Your task to perform on an android device: Open calendar and show me the third week of next month Image 0: 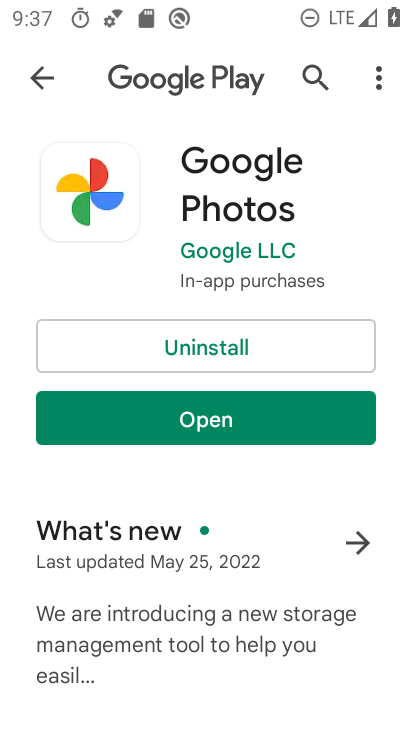
Step 0: press home button
Your task to perform on an android device: Open calendar and show me the third week of next month Image 1: 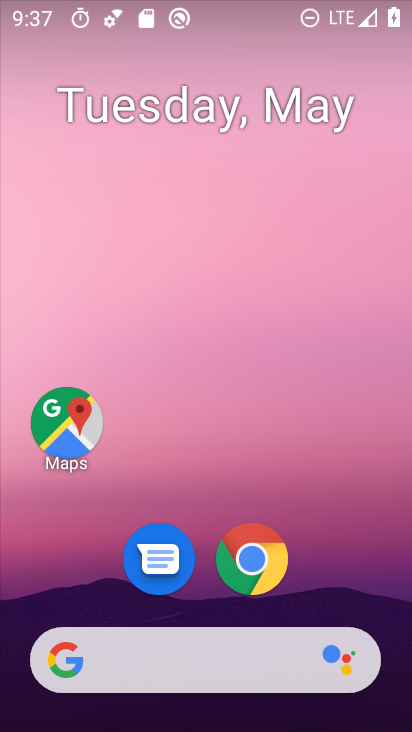
Step 1: drag from (404, 642) to (281, 119)
Your task to perform on an android device: Open calendar and show me the third week of next month Image 2: 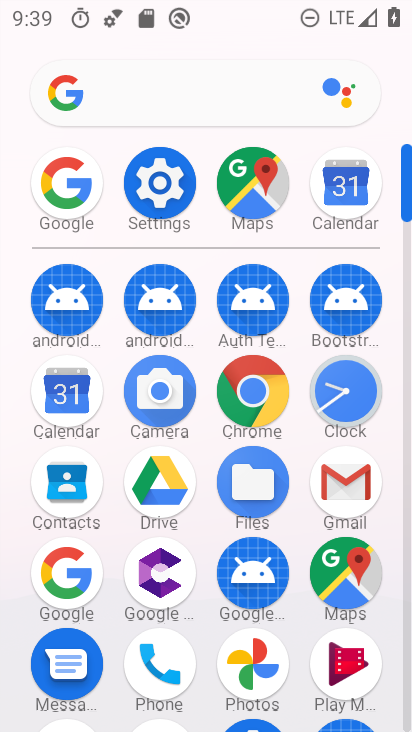
Step 2: click (63, 405)
Your task to perform on an android device: Open calendar and show me the third week of next month Image 3: 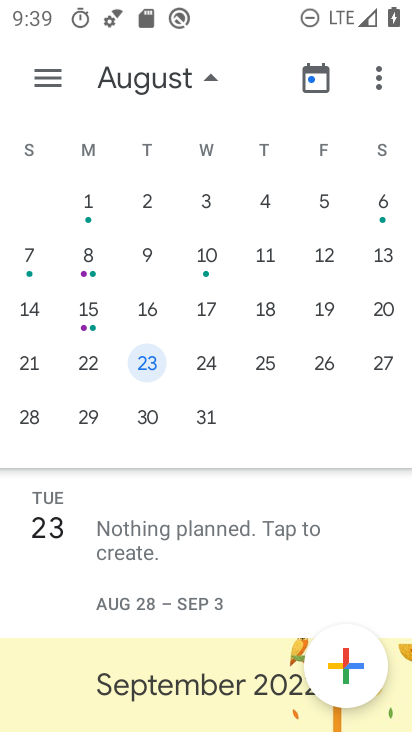
Step 3: drag from (392, 283) to (8, 298)
Your task to perform on an android device: Open calendar and show me the third week of next month Image 4: 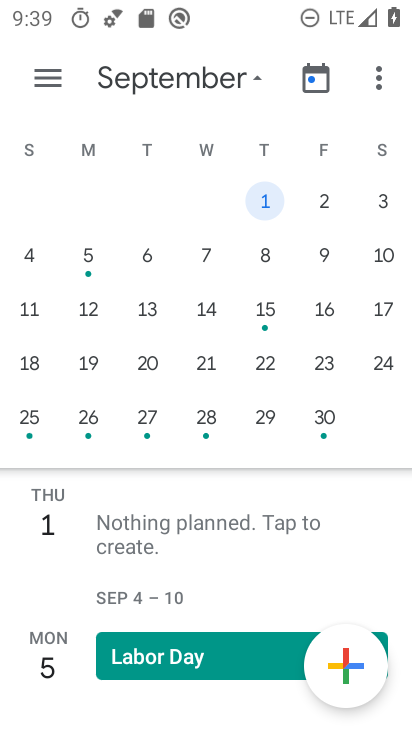
Step 4: click (254, 358)
Your task to perform on an android device: Open calendar and show me the third week of next month Image 5: 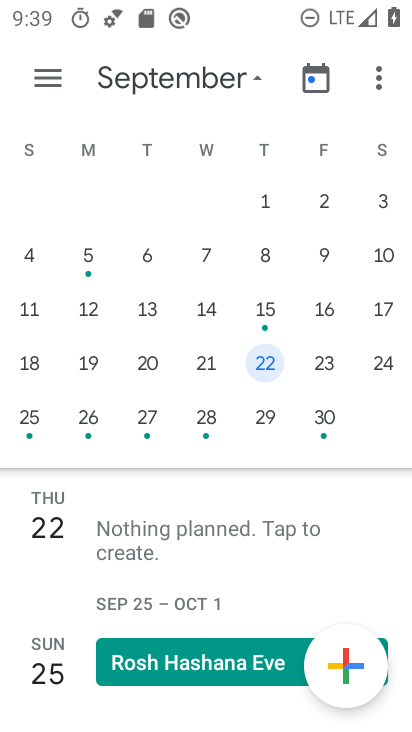
Step 5: task complete